Your task to perform on an android device: turn on improve location accuracy Image 0: 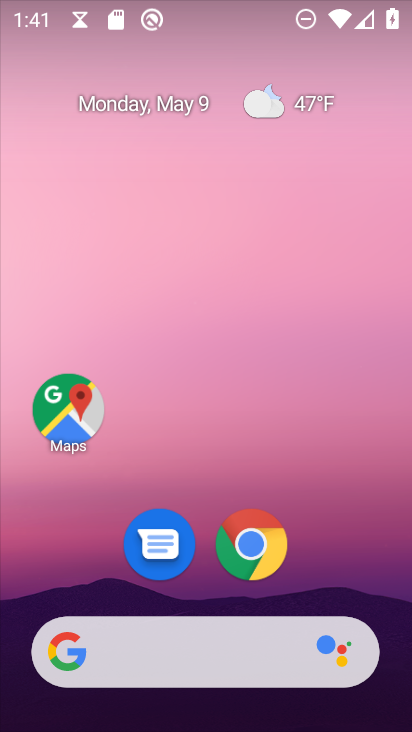
Step 0: drag from (389, 533) to (352, 108)
Your task to perform on an android device: turn on improve location accuracy Image 1: 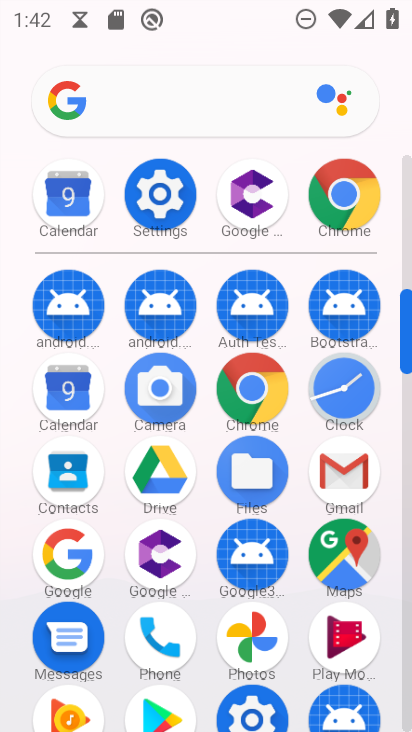
Step 1: click (162, 175)
Your task to perform on an android device: turn on improve location accuracy Image 2: 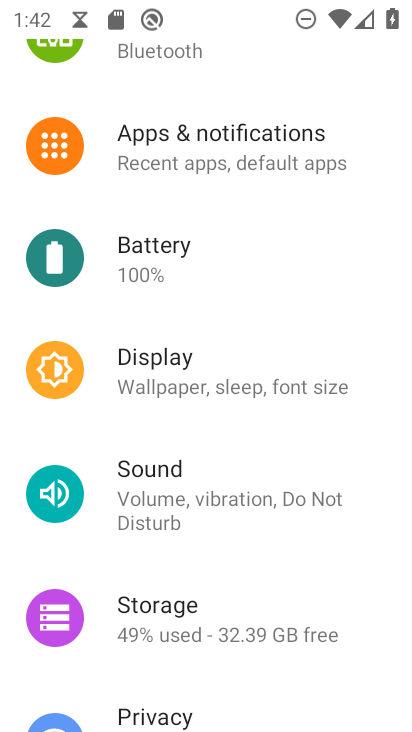
Step 2: drag from (237, 579) to (314, 308)
Your task to perform on an android device: turn on improve location accuracy Image 3: 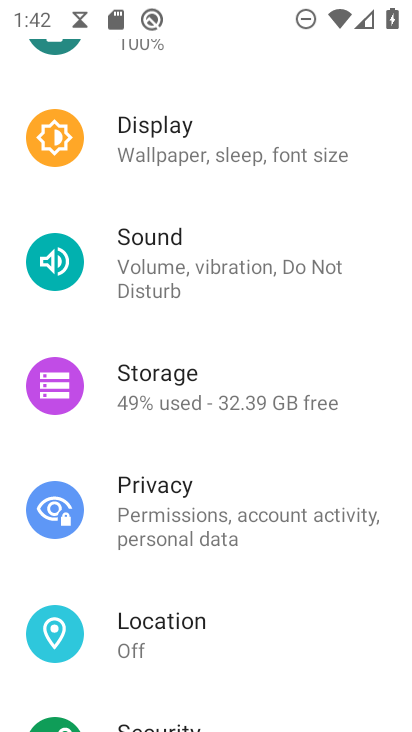
Step 3: click (169, 632)
Your task to perform on an android device: turn on improve location accuracy Image 4: 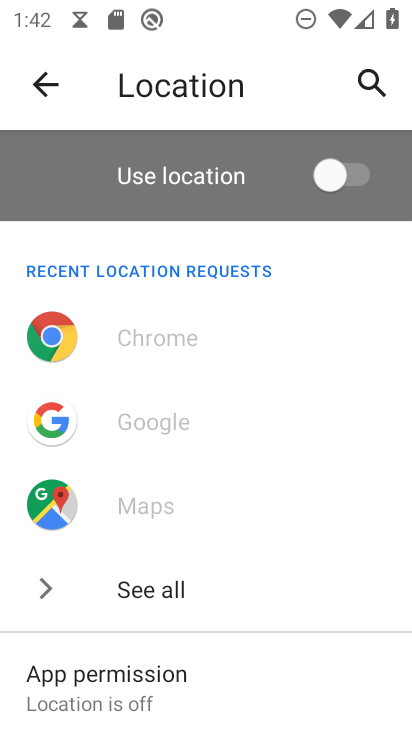
Step 4: drag from (144, 534) to (221, 286)
Your task to perform on an android device: turn on improve location accuracy Image 5: 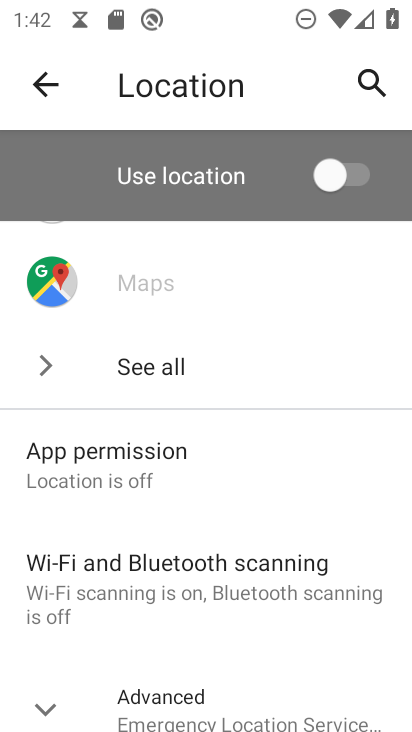
Step 5: drag from (221, 592) to (282, 290)
Your task to perform on an android device: turn on improve location accuracy Image 6: 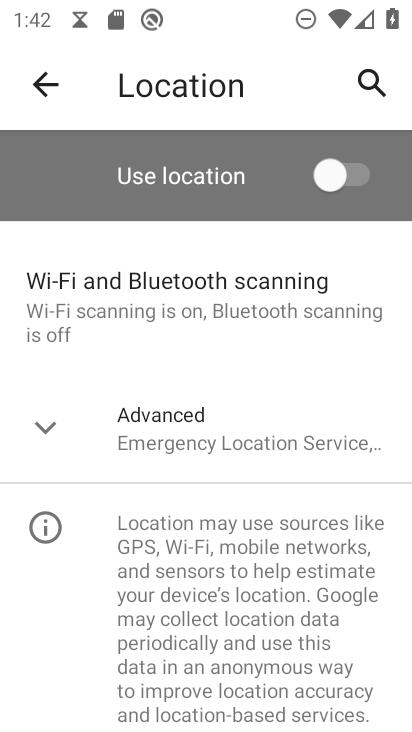
Step 6: drag from (222, 622) to (222, 366)
Your task to perform on an android device: turn on improve location accuracy Image 7: 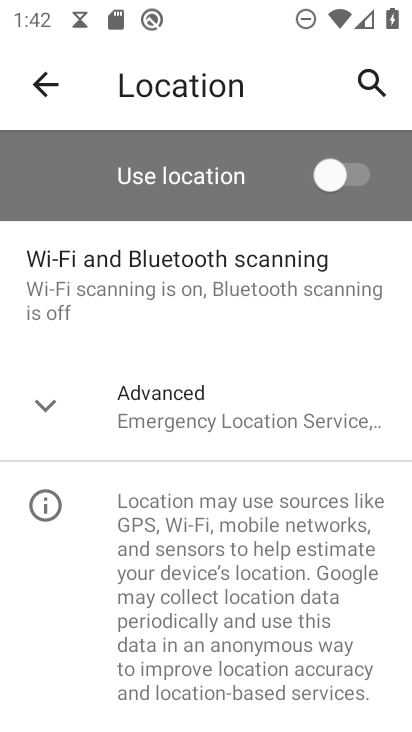
Step 7: click (219, 400)
Your task to perform on an android device: turn on improve location accuracy Image 8: 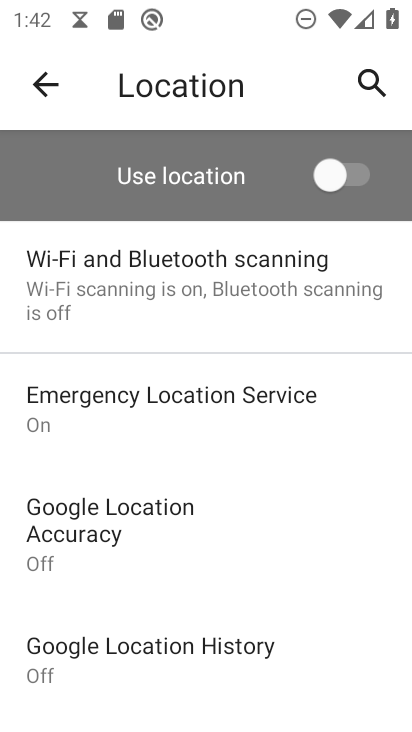
Step 8: click (86, 514)
Your task to perform on an android device: turn on improve location accuracy Image 9: 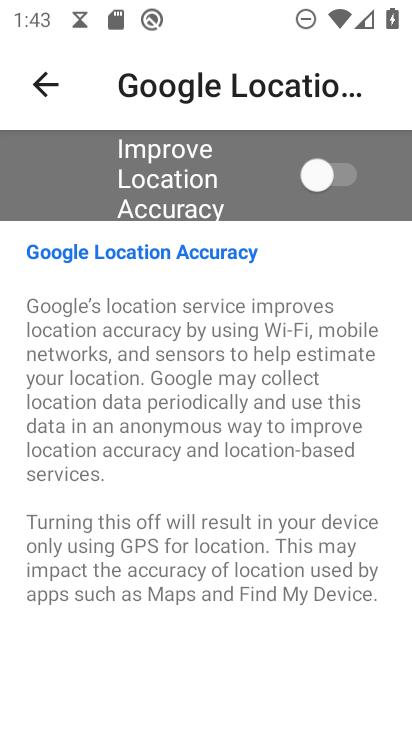
Step 9: click (334, 181)
Your task to perform on an android device: turn on improve location accuracy Image 10: 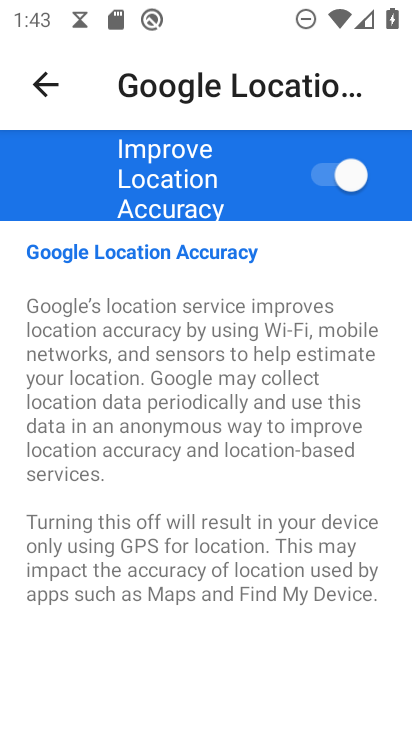
Step 10: task complete